Your task to perform on an android device: Empty the shopping cart on target. Add "alienware aurora" to the cart on target, then select checkout. Image 0: 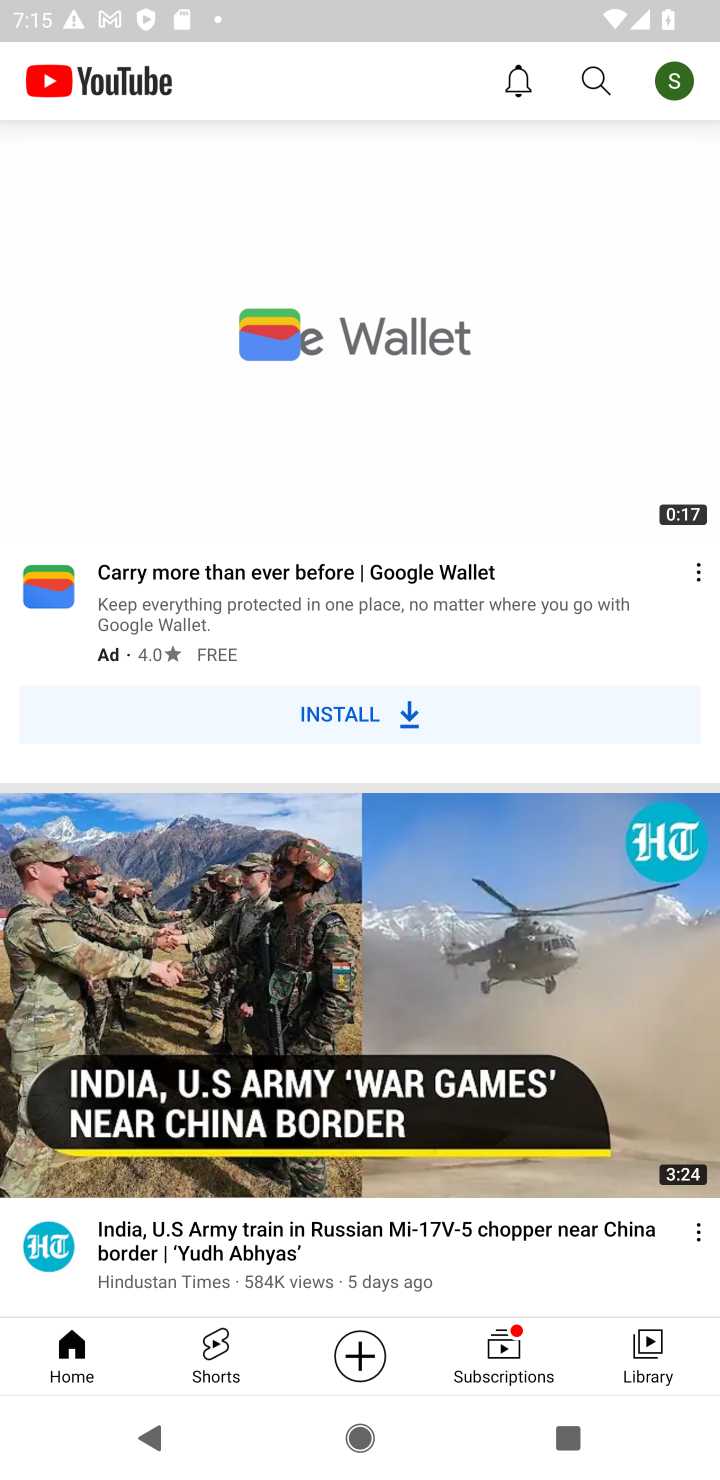
Step 0: press home button
Your task to perform on an android device: Empty the shopping cart on target. Add "alienware aurora" to the cart on target, then select checkout. Image 1: 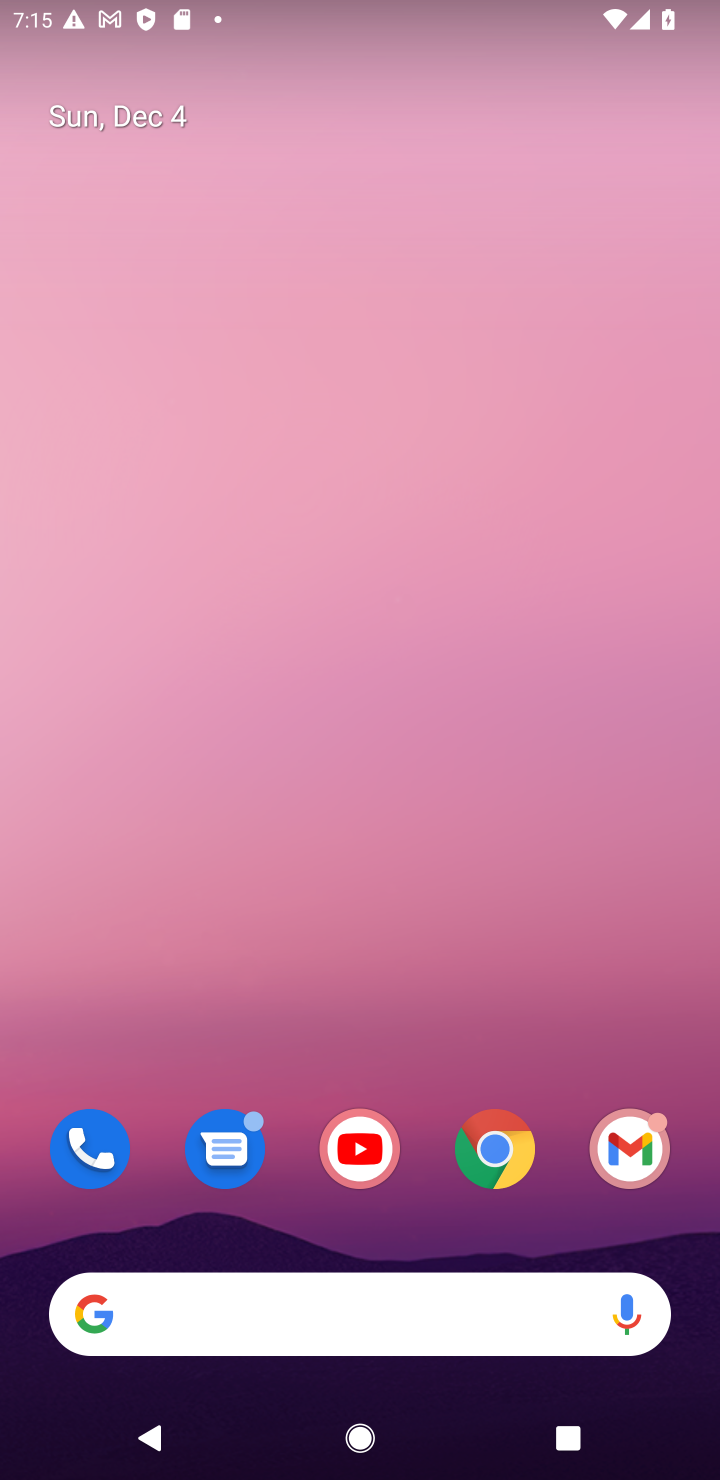
Step 1: drag from (288, 845) to (281, 464)
Your task to perform on an android device: Empty the shopping cart on target. Add "alienware aurora" to the cart on target, then select checkout. Image 2: 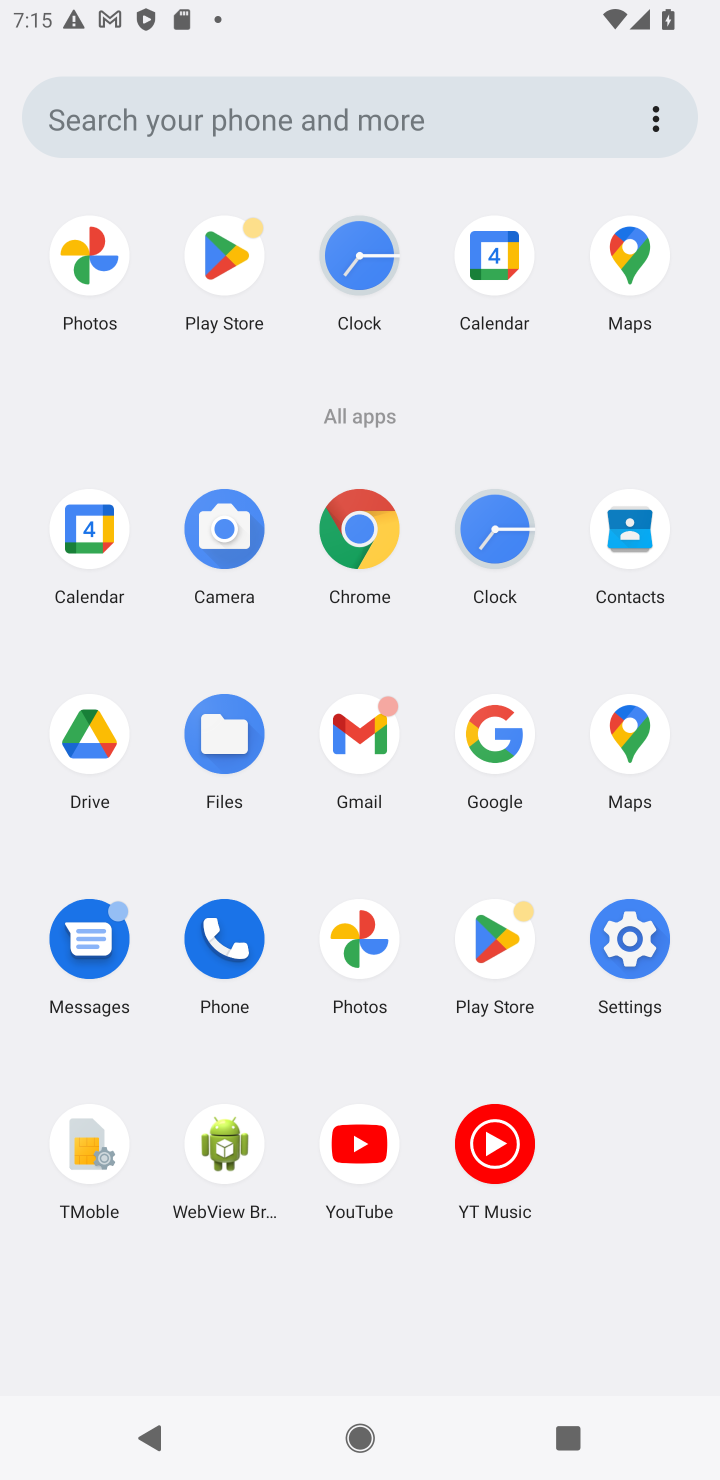
Step 2: click (479, 734)
Your task to perform on an android device: Empty the shopping cart on target. Add "alienware aurora" to the cart on target, then select checkout. Image 3: 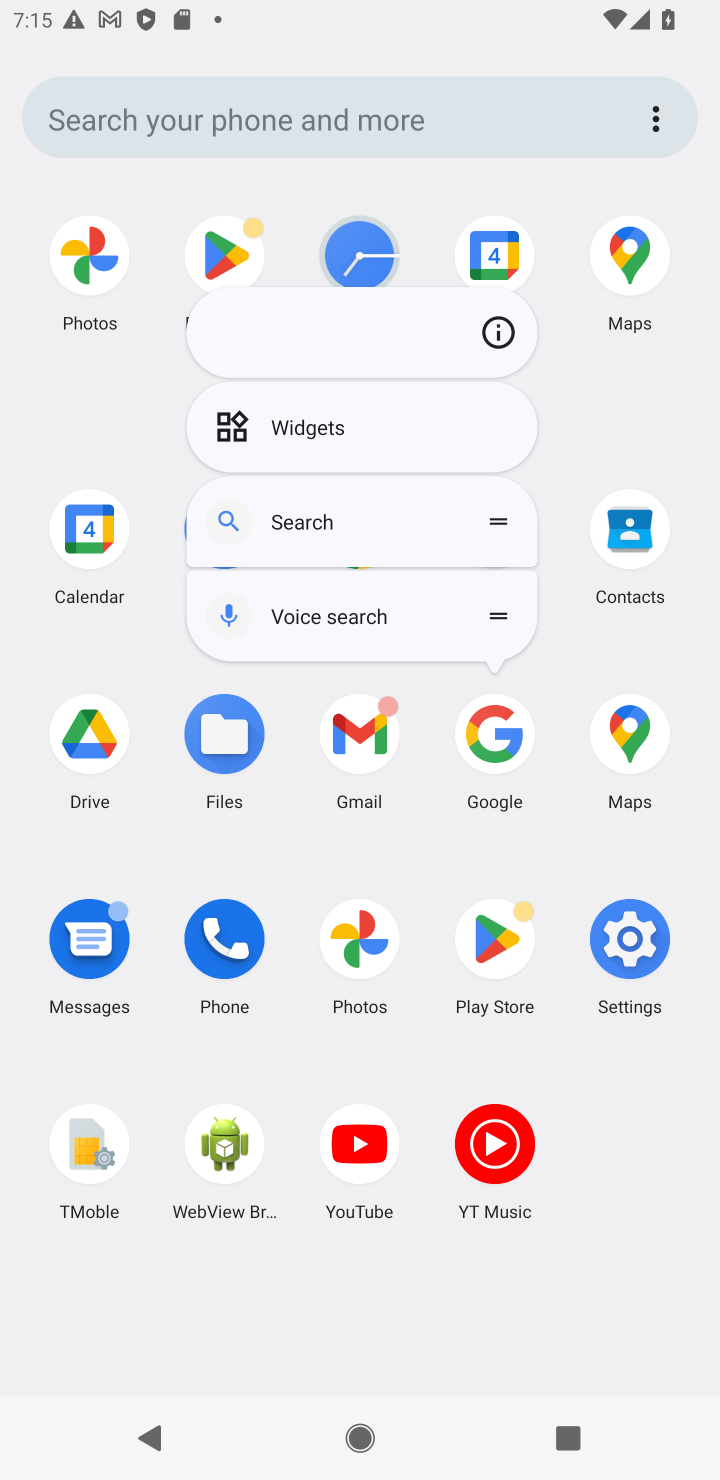
Step 3: click (493, 765)
Your task to perform on an android device: Empty the shopping cart on target. Add "alienware aurora" to the cart on target, then select checkout. Image 4: 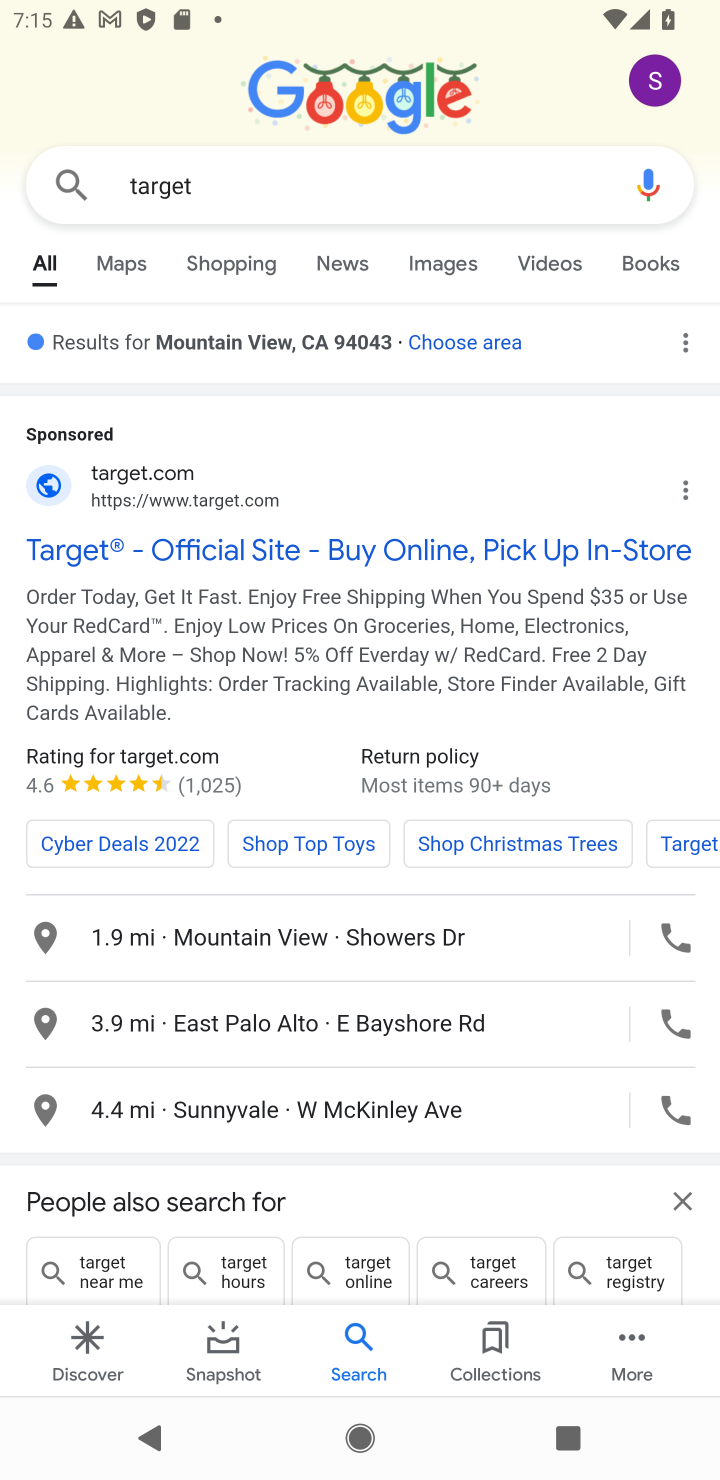
Step 4: click (166, 551)
Your task to perform on an android device: Empty the shopping cart on target. Add "alienware aurora" to the cart on target, then select checkout. Image 5: 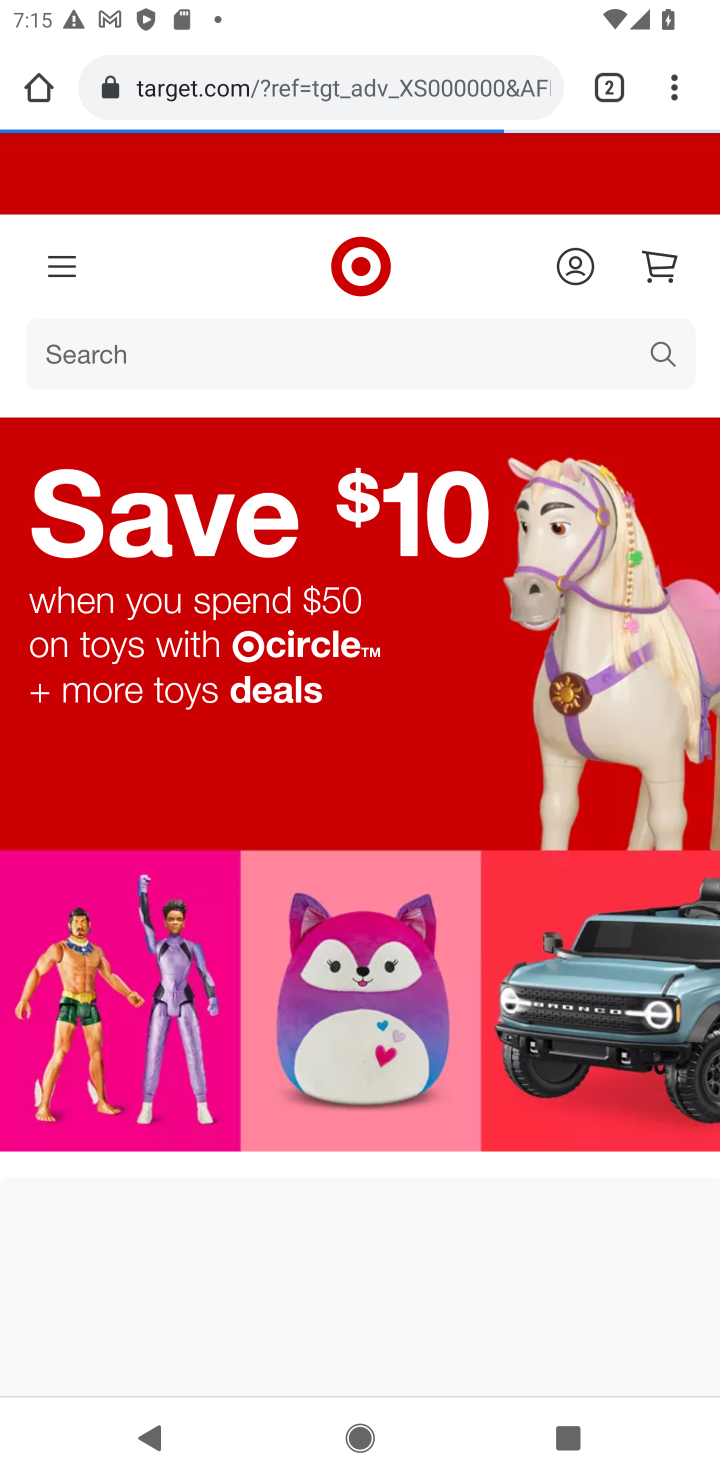
Step 5: click (369, 363)
Your task to perform on an android device: Empty the shopping cart on target. Add "alienware aurora" to the cart on target, then select checkout. Image 6: 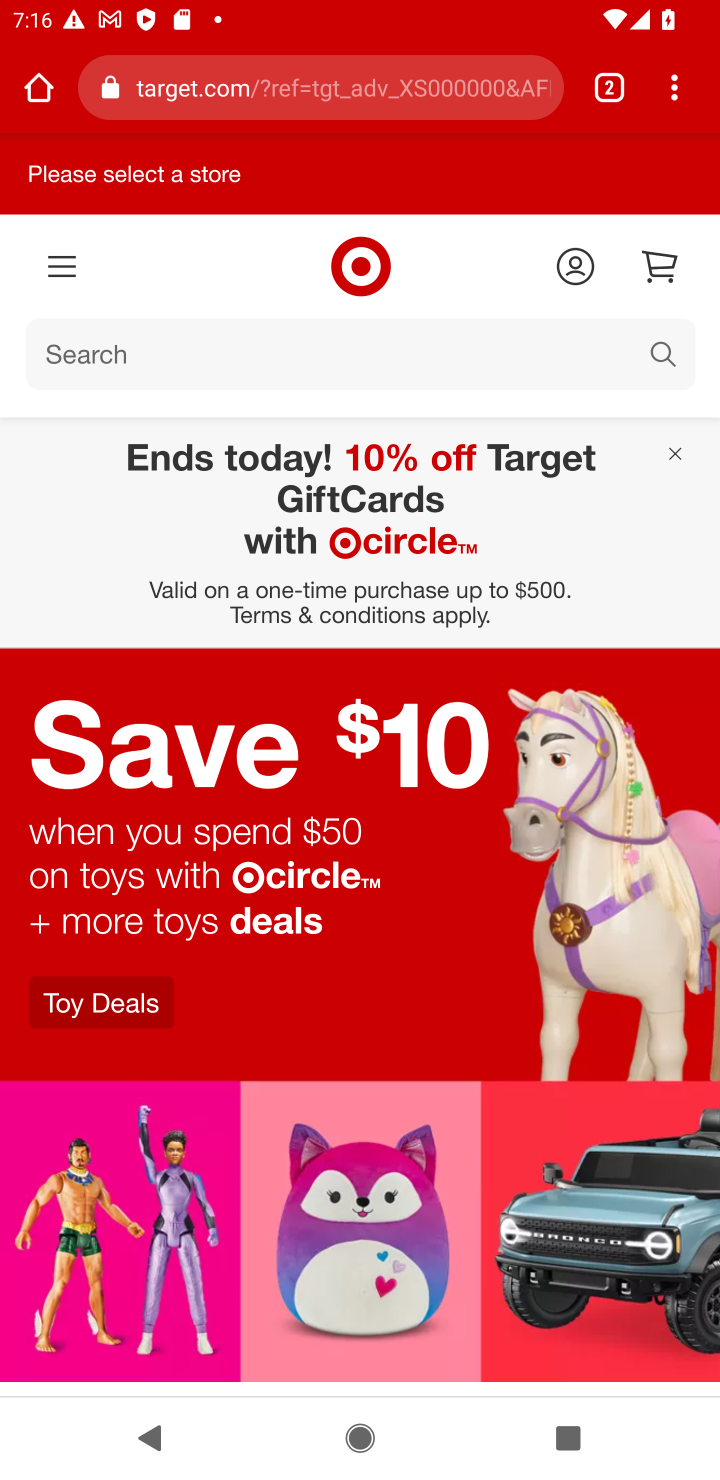
Step 6: click (224, 369)
Your task to perform on an android device: Empty the shopping cart on target. Add "alienware aurora" to the cart on target, then select checkout. Image 7: 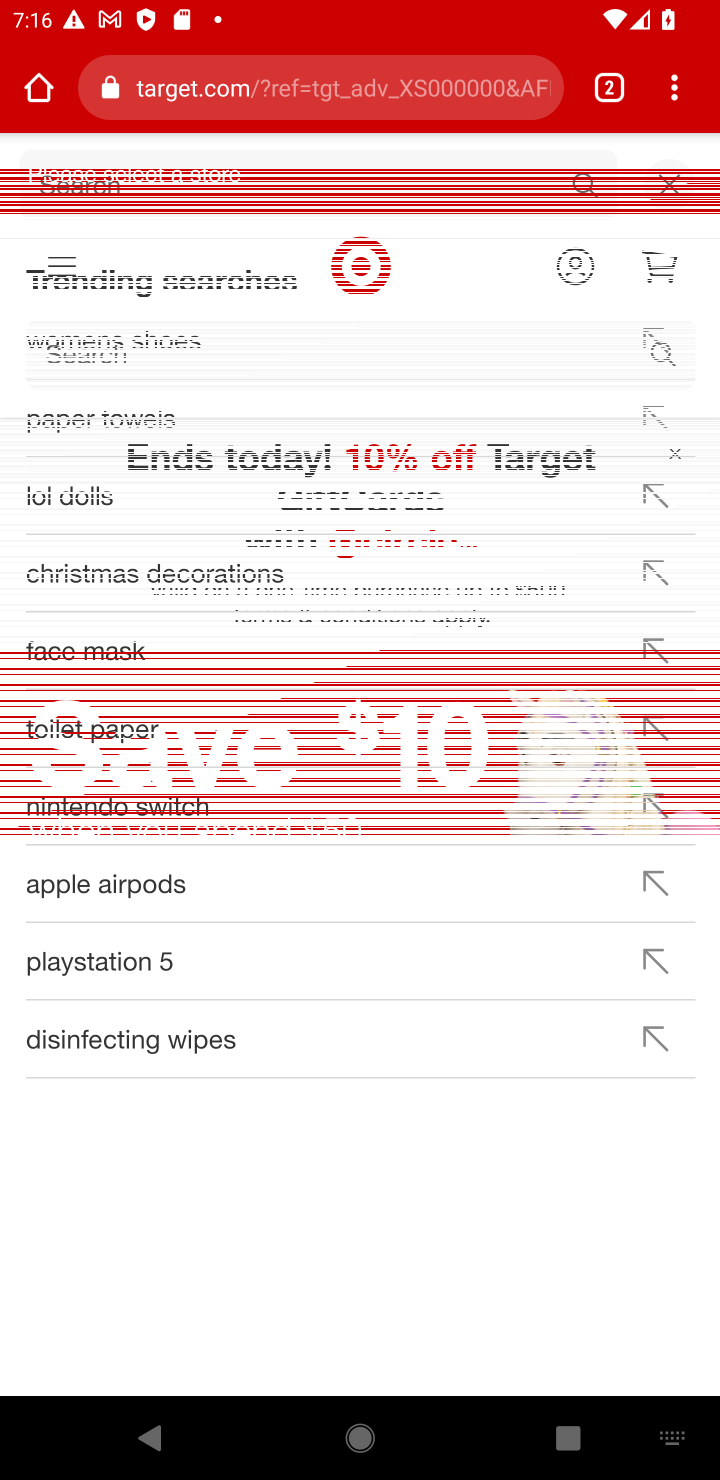
Step 7: type "alienware aurora"
Your task to perform on an android device: Empty the shopping cart on target. Add "alienware aurora" to the cart on target, then select checkout. Image 8: 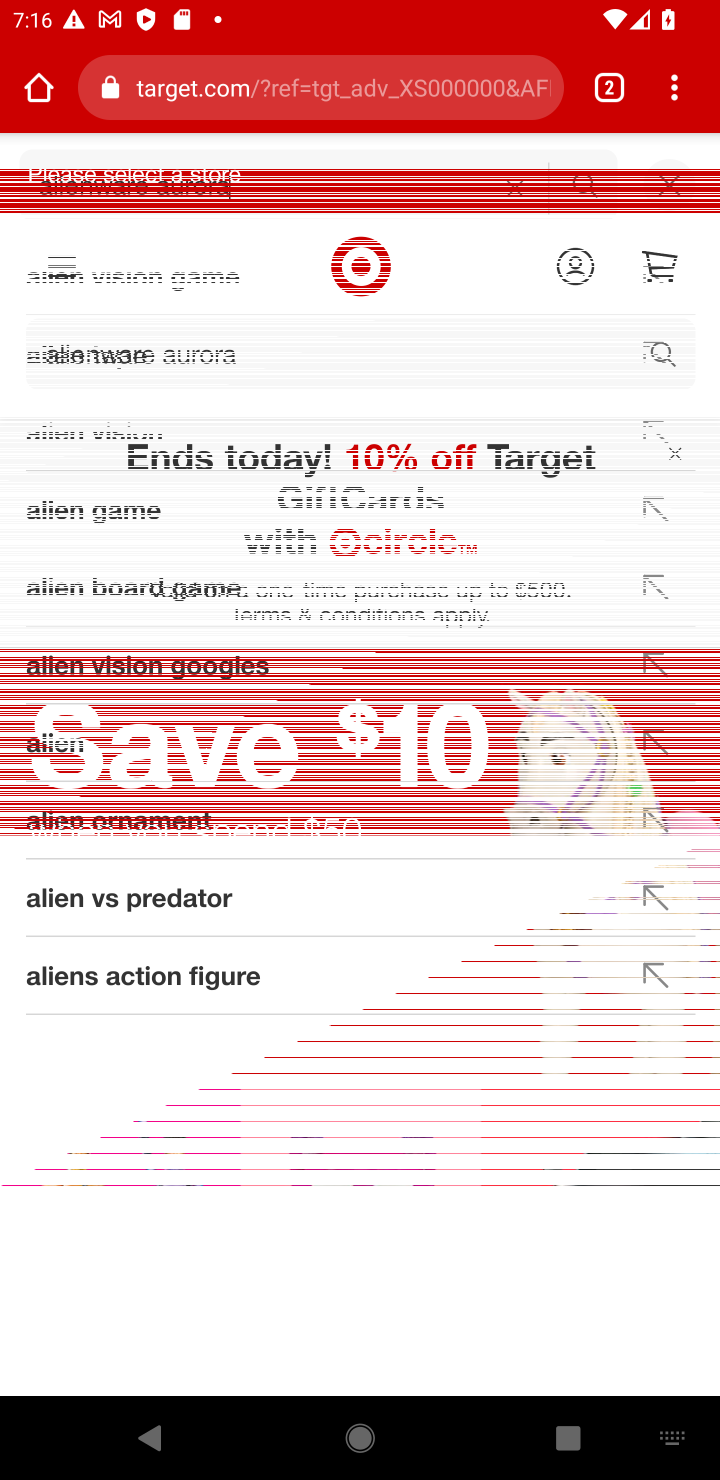
Step 8: click (593, 181)
Your task to perform on an android device: Empty the shopping cart on target. Add "alienware aurora" to the cart on target, then select checkout. Image 9: 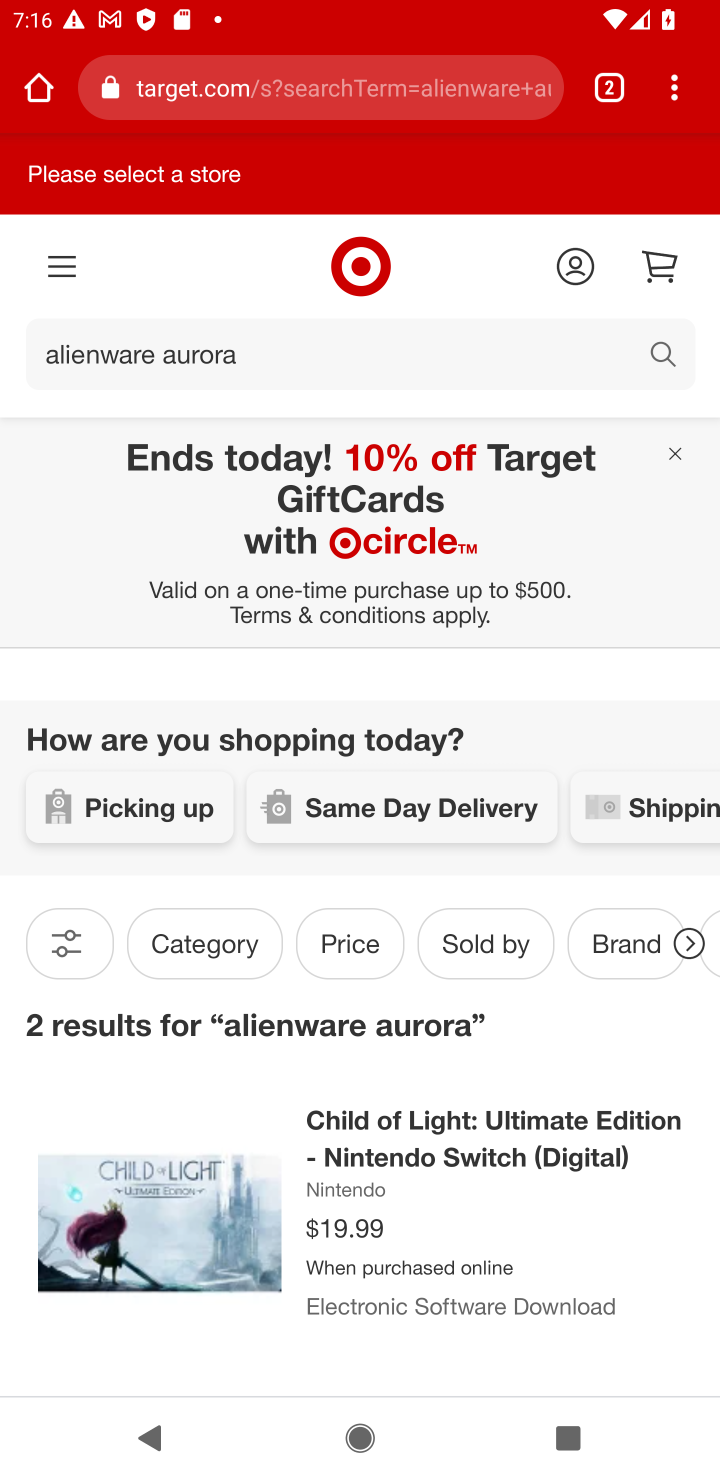
Step 9: drag from (500, 1230) to (529, 557)
Your task to perform on an android device: Empty the shopping cart on target. Add "alienware aurora" to the cart on target, then select checkout. Image 10: 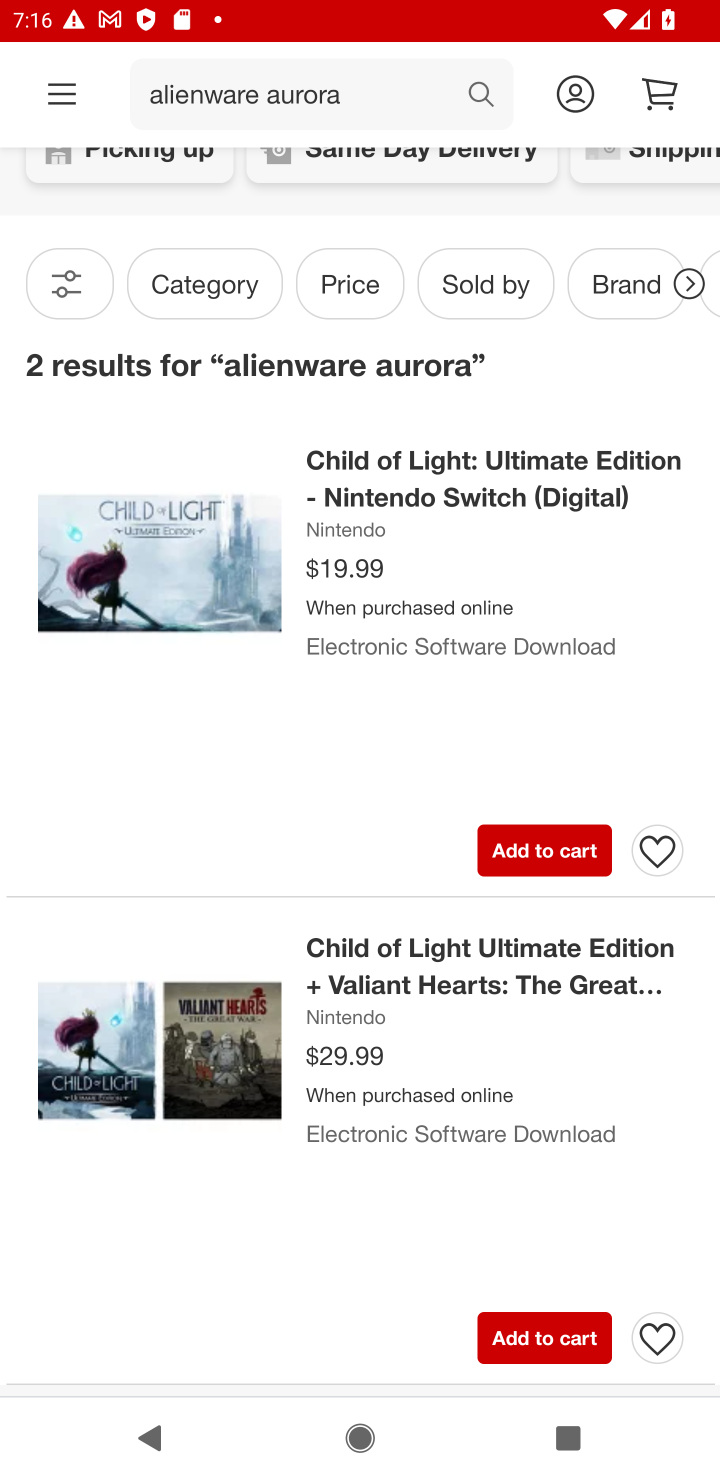
Step 10: click (525, 852)
Your task to perform on an android device: Empty the shopping cart on target. Add "alienware aurora" to the cart on target, then select checkout. Image 11: 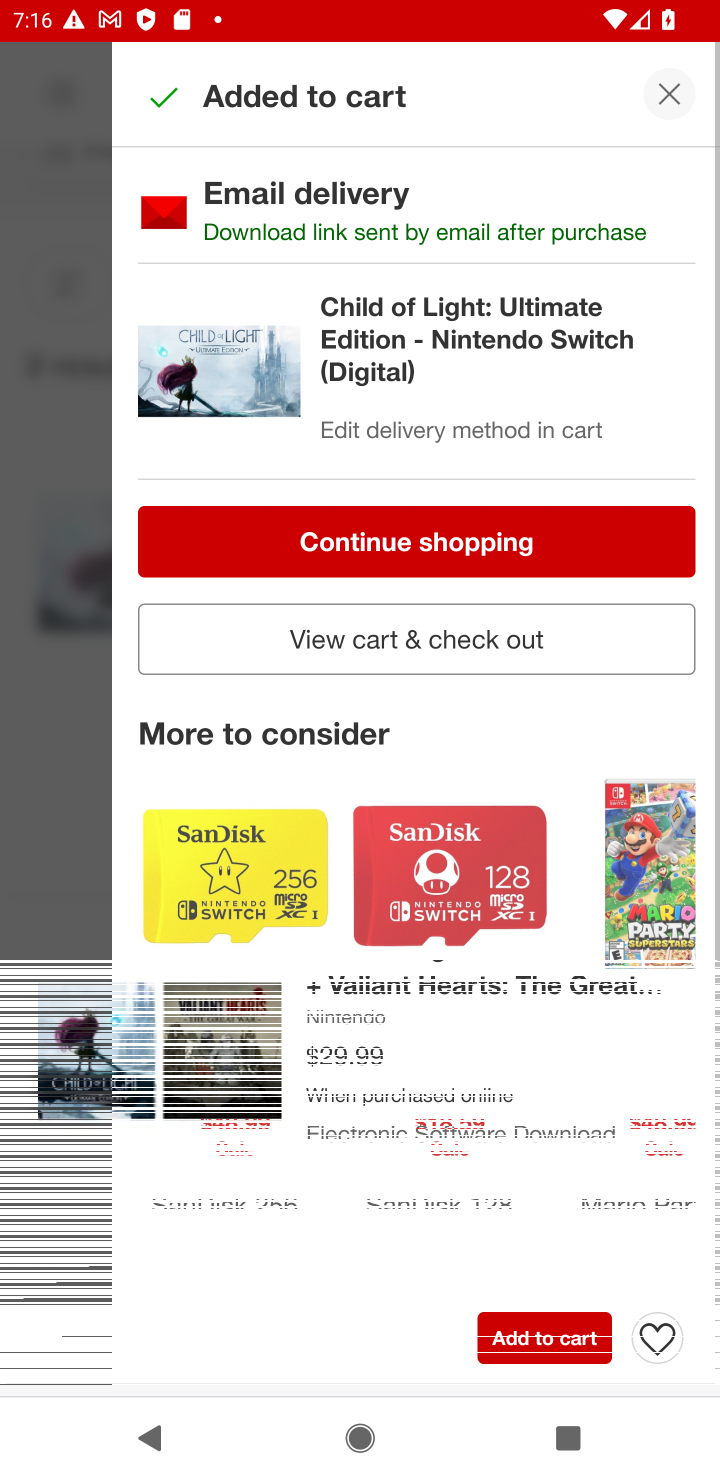
Step 11: click (675, 98)
Your task to perform on an android device: Empty the shopping cart on target. Add "alienware aurora" to the cart on target, then select checkout. Image 12: 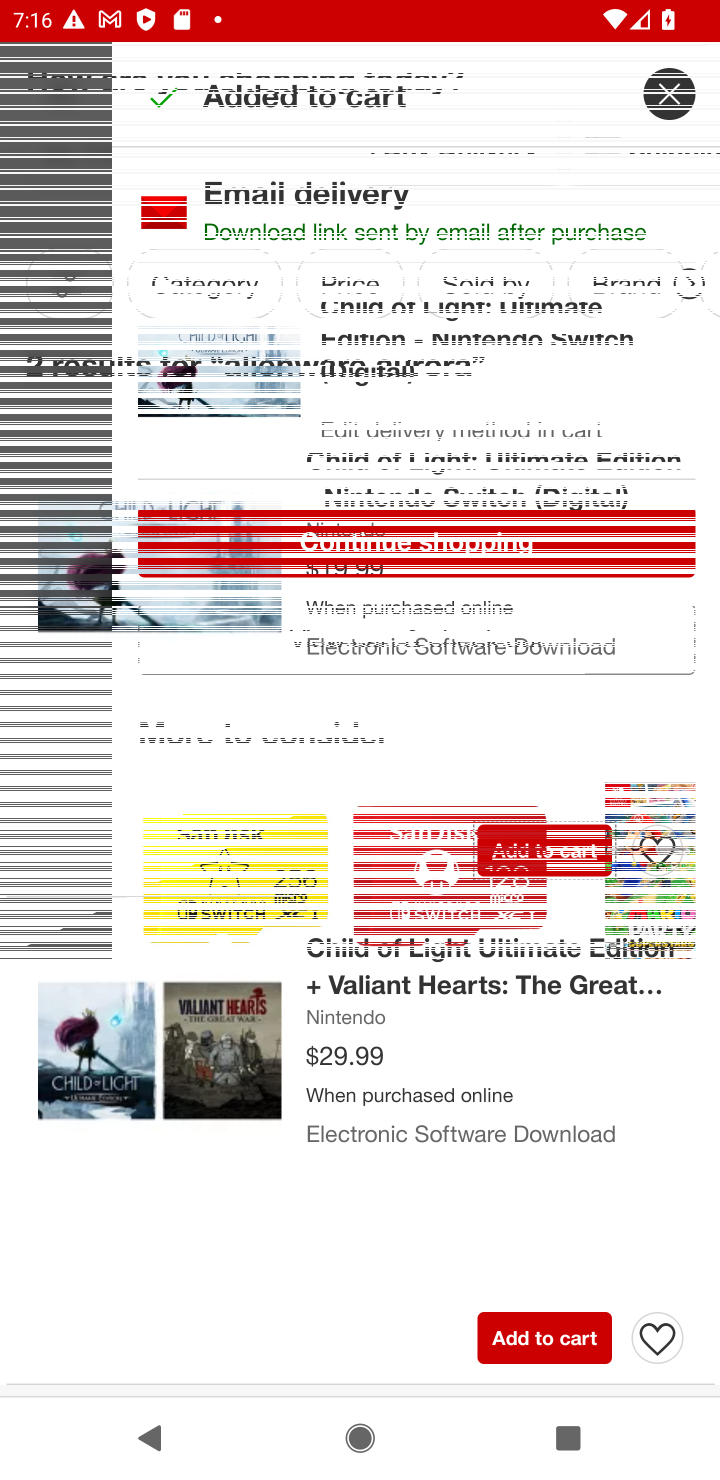
Step 12: click (661, 95)
Your task to perform on an android device: Empty the shopping cart on target. Add "alienware aurora" to the cart on target, then select checkout. Image 13: 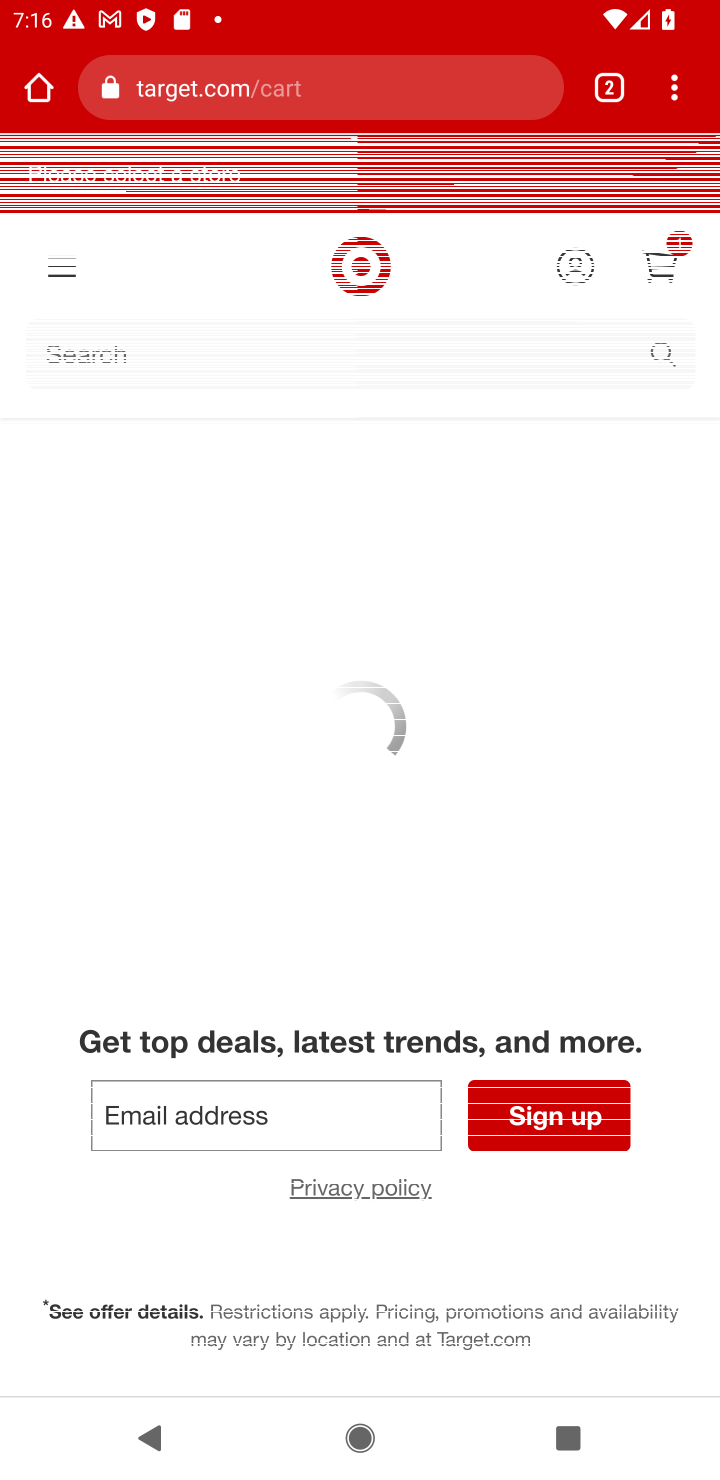
Step 13: click (674, 254)
Your task to perform on an android device: Empty the shopping cart on target. Add "alienware aurora" to the cart on target, then select checkout. Image 14: 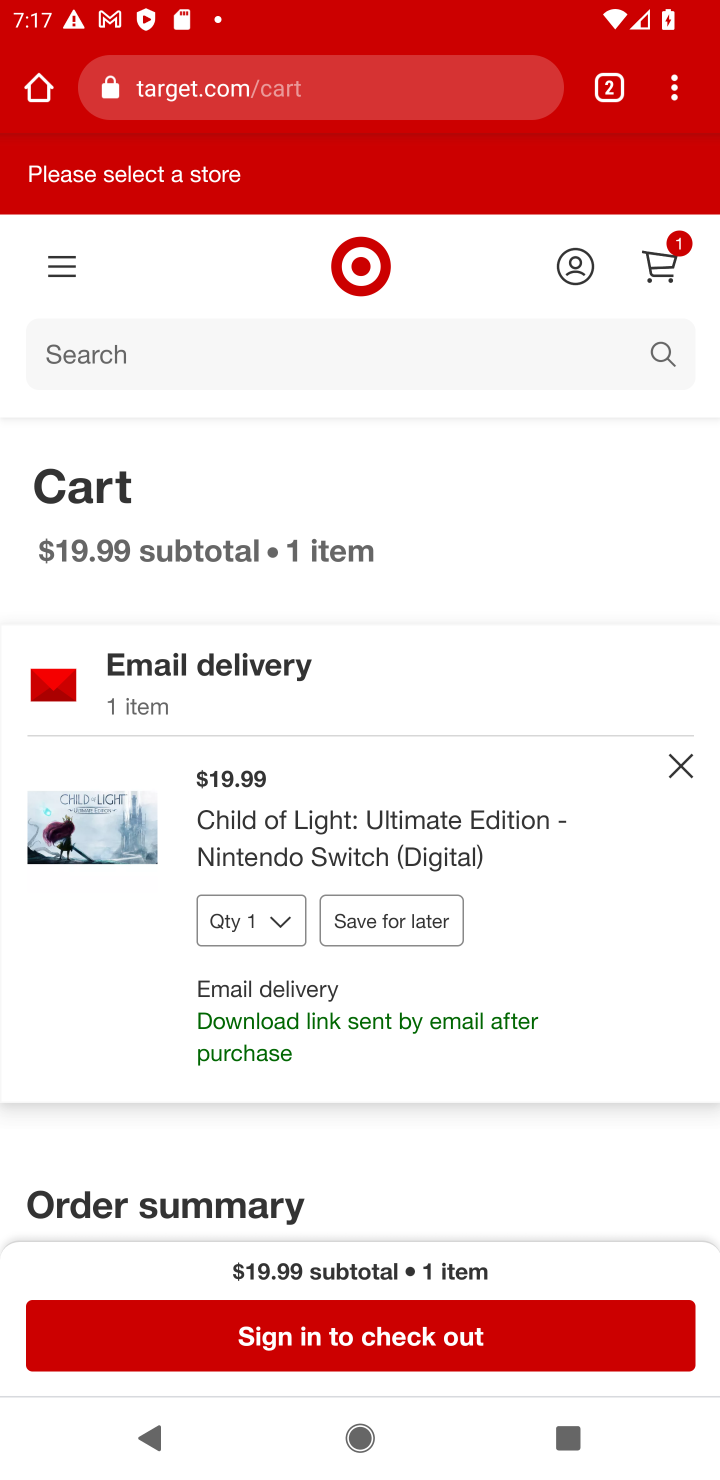
Step 14: click (402, 1340)
Your task to perform on an android device: Empty the shopping cart on target. Add "alienware aurora" to the cart on target, then select checkout. Image 15: 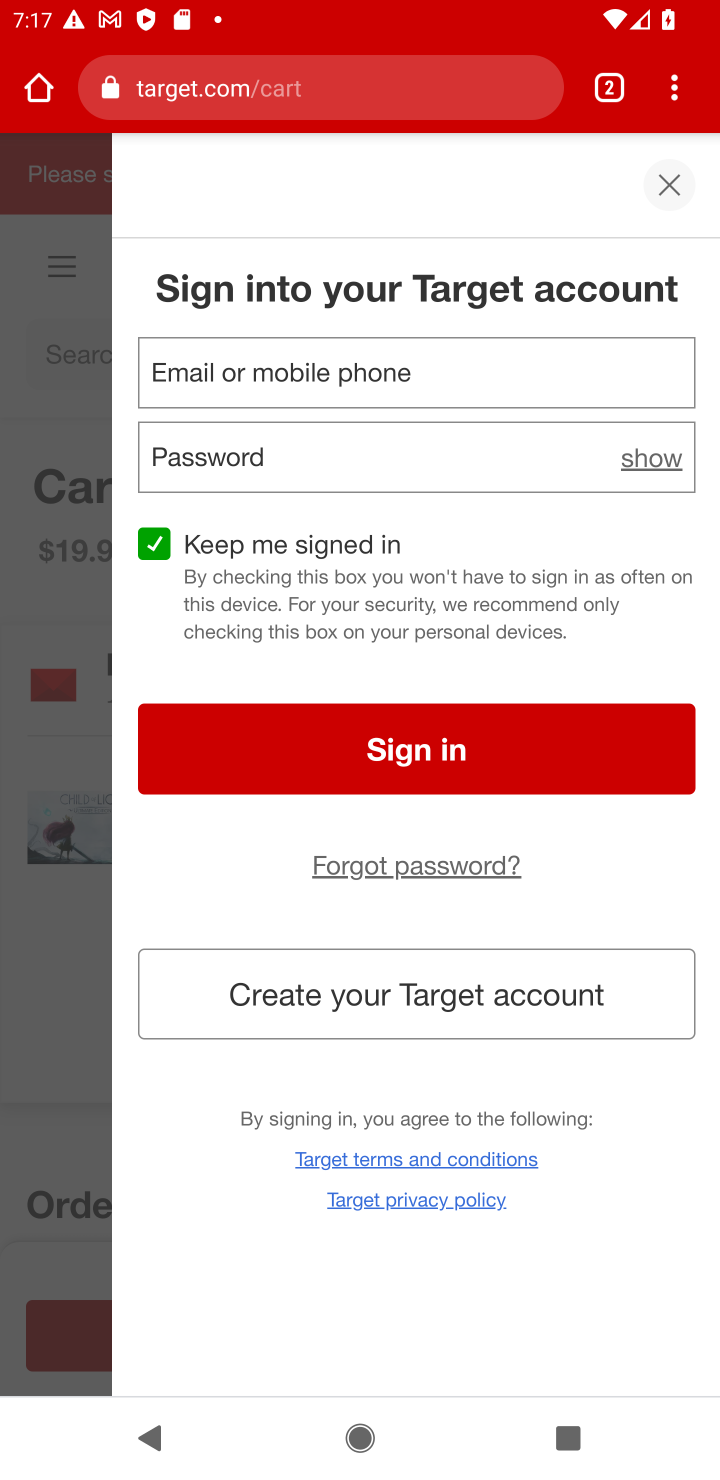
Step 15: task complete